Your task to perform on an android device: change the clock display to analog Image 0: 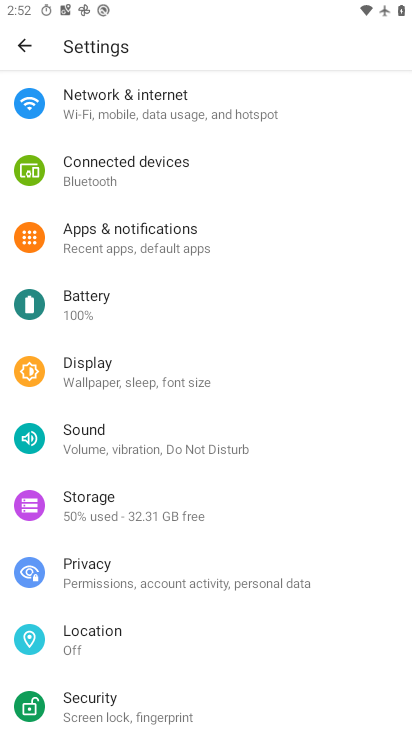
Step 0: press home button
Your task to perform on an android device: change the clock display to analog Image 1: 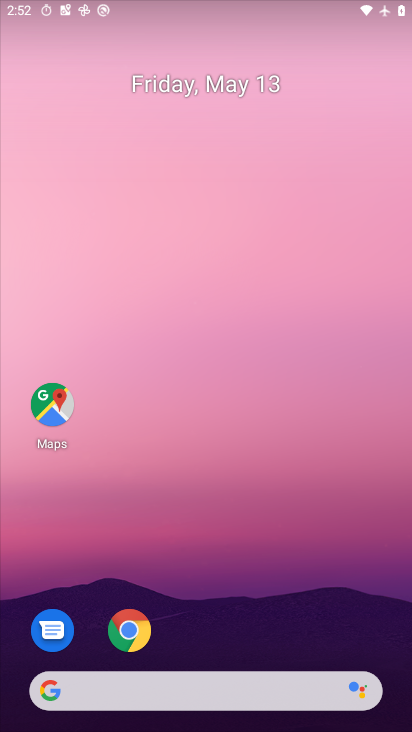
Step 1: drag from (304, 598) to (323, 266)
Your task to perform on an android device: change the clock display to analog Image 2: 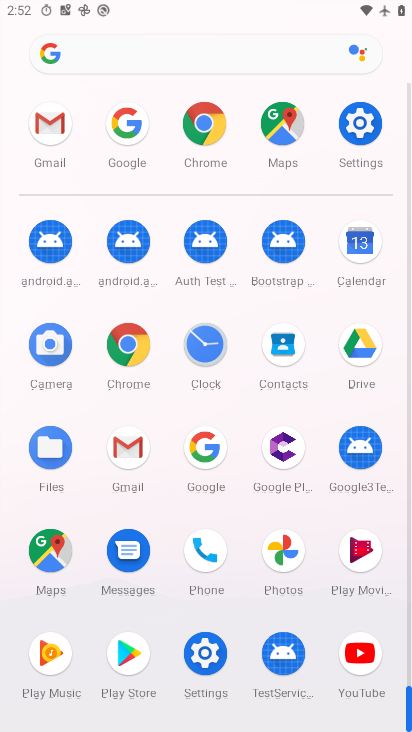
Step 2: click (217, 354)
Your task to perform on an android device: change the clock display to analog Image 3: 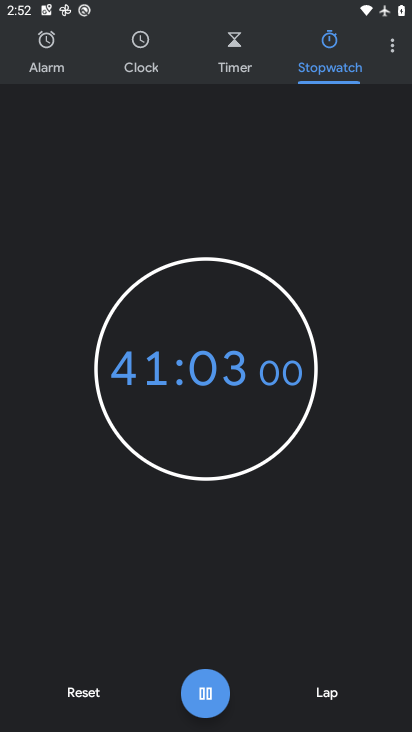
Step 3: click (393, 54)
Your task to perform on an android device: change the clock display to analog Image 4: 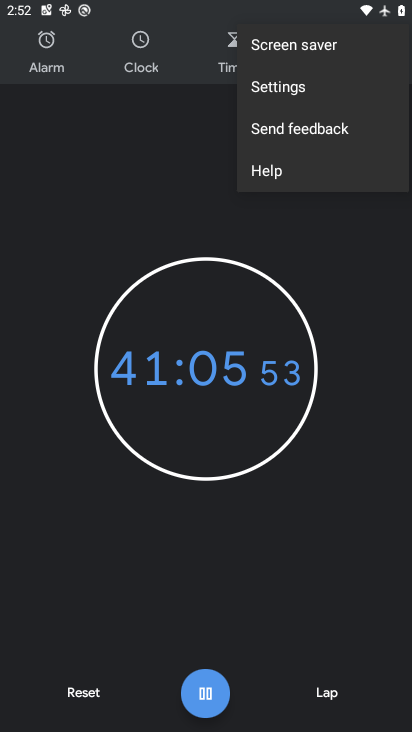
Step 4: click (305, 86)
Your task to perform on an android device: change the clock display to analog Image 5: 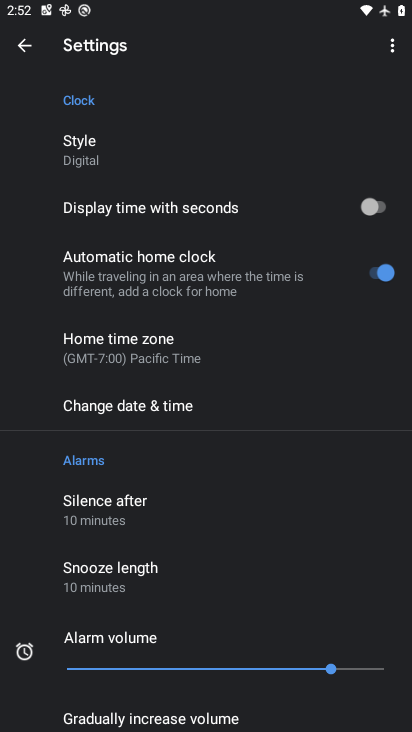
Step 5: click (191, 168)
Your task to perform on an android device: change the clock display to analog Image 6: 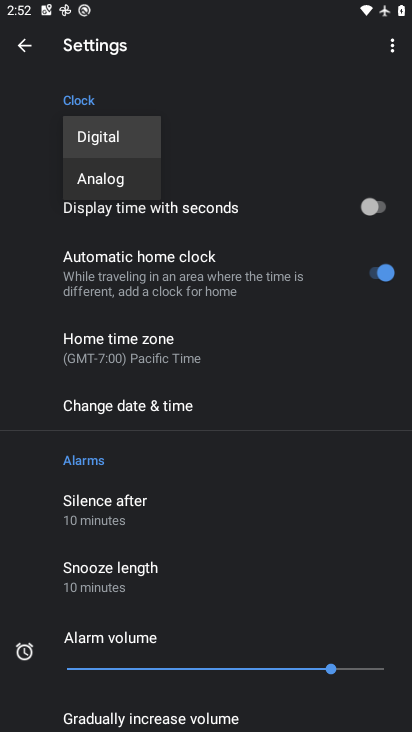
Step 6: click (133, 184)
Your task to perform on an android device: change the clock display to analog Image 7: 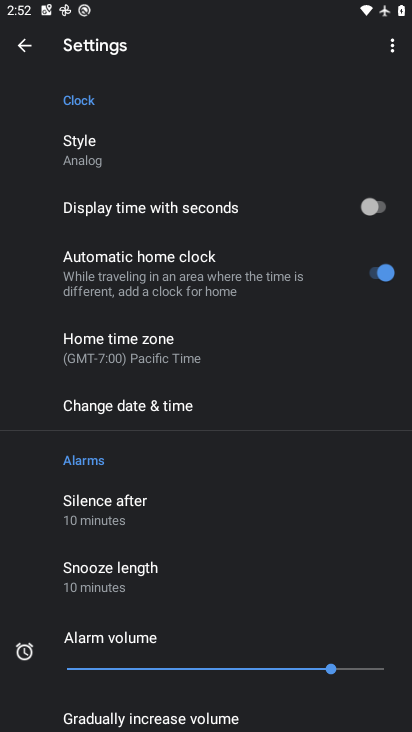
Step 7: task complete